Your task to perform on an android device: turn on priority inbox in the gmail app Image 0: 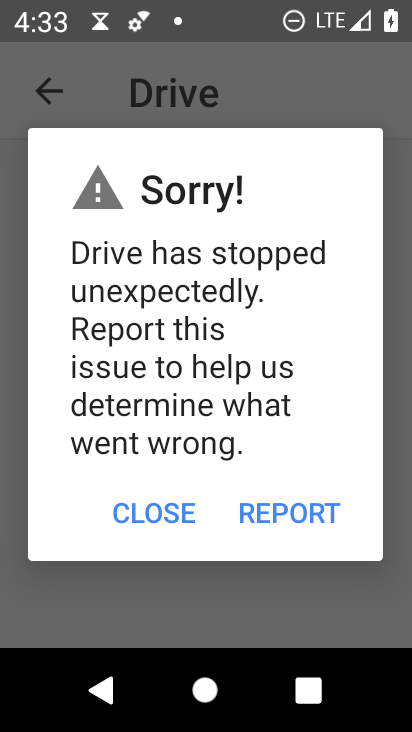
Step 0: press home button
Your task to perform on an android device: turn on priority inbox in the gmail app Image 1: 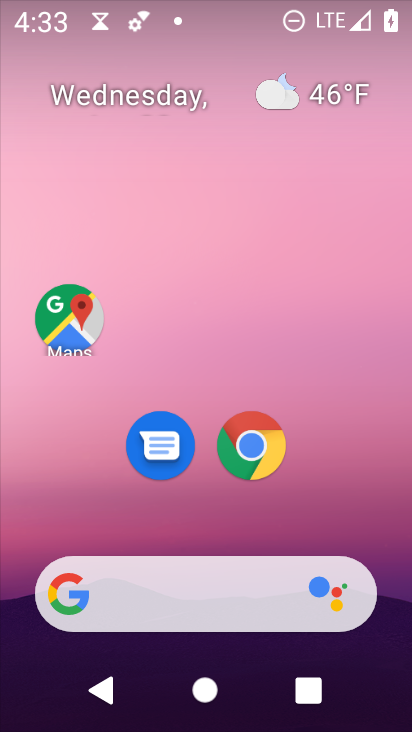
Step 1: drag from (248, 412) to (281, 130)
Your task to perform on an android device: turn on priority inbox in the gmail app Image 2: 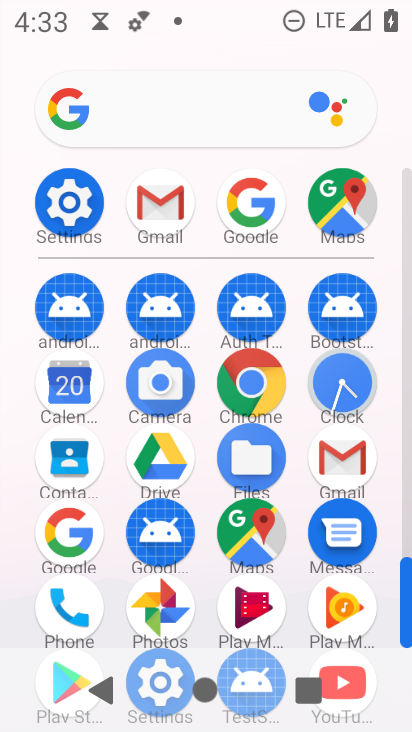
Step 2: click (160, 208)
Your task to perform on an android device: turn on priority inbox in the gmail app Image 3: 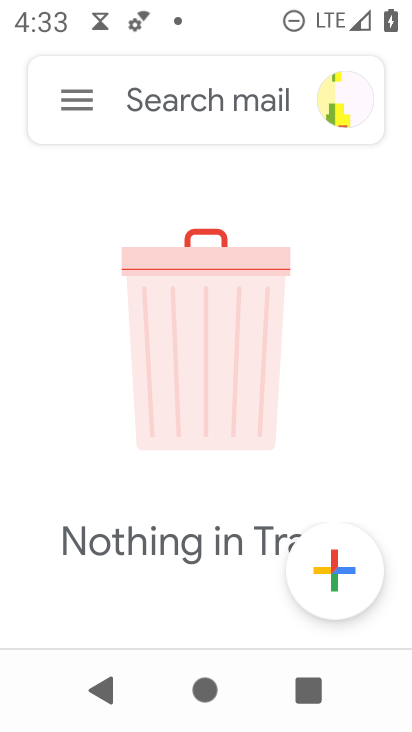
Step 3: click (71, 106)
Your task to perform on an android device: turn on priority inbox in the gmail app Image 4: 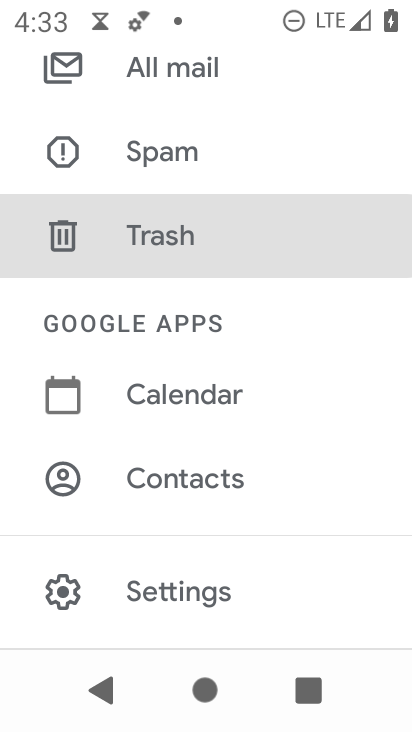
Step 4: click (194, 590)
Your task to perform on an android device: turn on priority inbox in the gmail app Image 5: 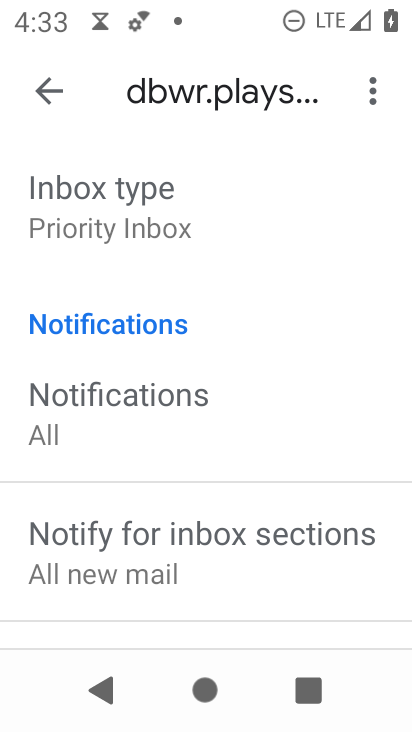
Step 5: task complete